Your task to perform on an android device: Go to Android settings Image 0: 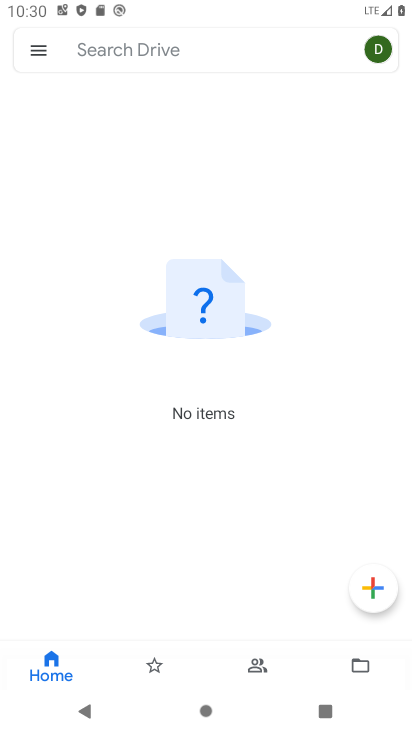
Step 0: click (403, 659)
Your task to perform on an android device: Go to Android settings Image 1: 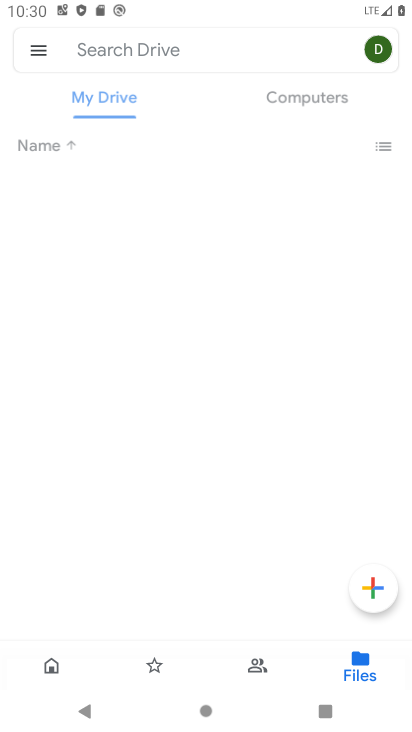
Step 1: press home button
Your task to perform on an android device: Go to Android settings Image 2: 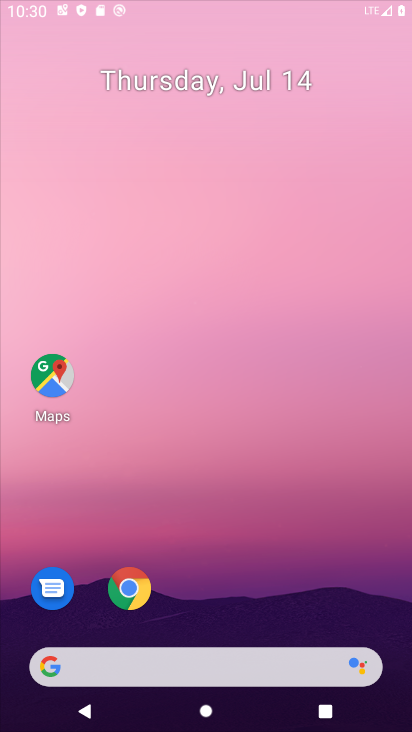
Step 2: drag from (380, 656) to (183, 32)
Your task to perform on an android device: Go to Android settings Image 3: 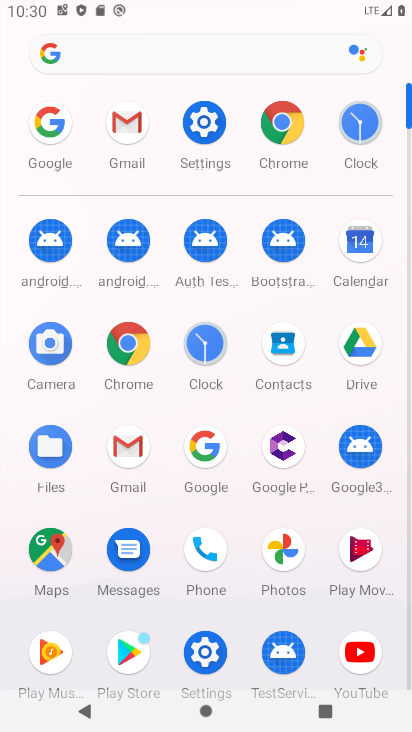
Step 3: click (194, 651)
Your task to perform on an android device: Go to Android settings Image 4: 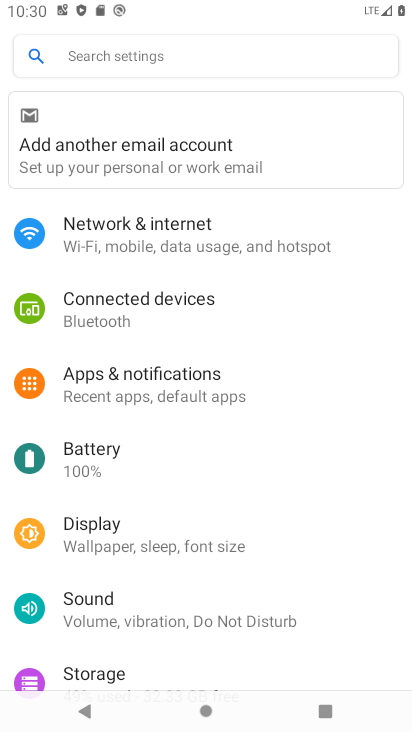
Step 4: task complete